Your task to perform on an android device: star an email in the gmail app Image 0: 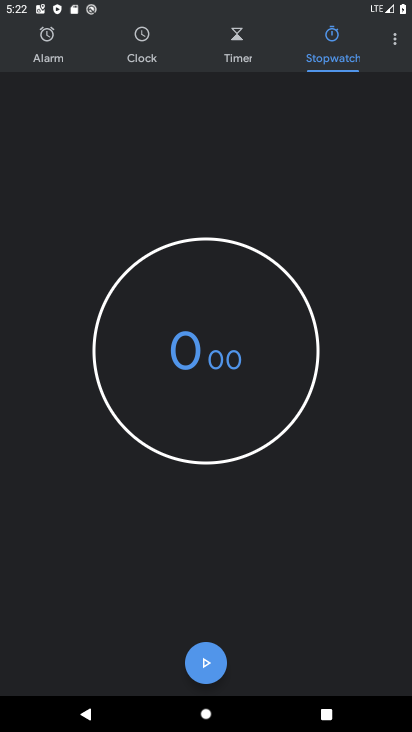
Step 0: press home button
Your task to perform on an android device: star an email in the gmail app Image 1: 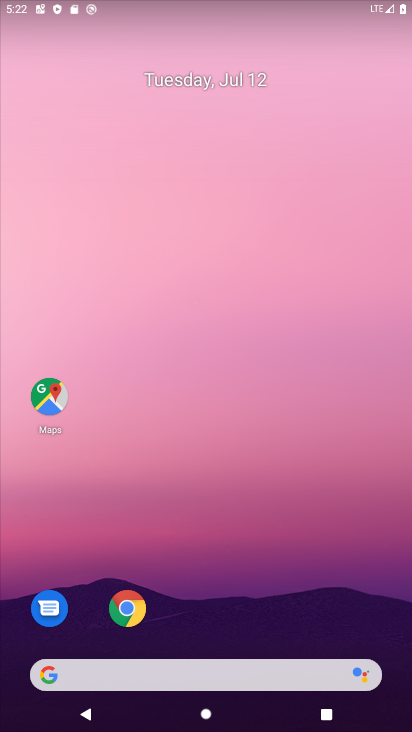
Step 1: drag from (208, 576) to (241, 62)
Your task to perform on an android device: star an email in the gmail app Image 2: 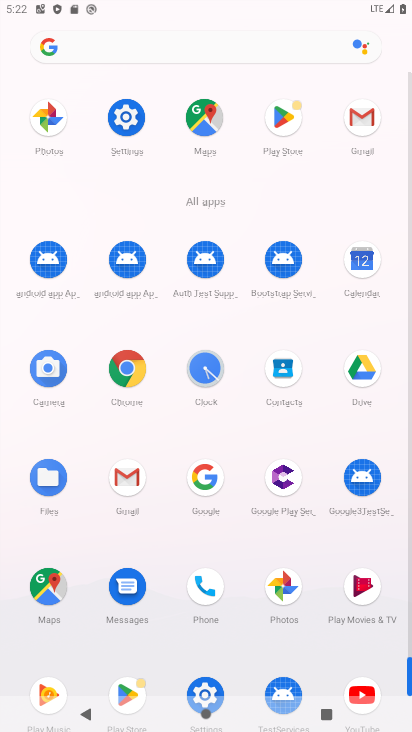
Step 2: click (359, 115)
Your task to perform on an android device: star an email in the gmail app Image 3: 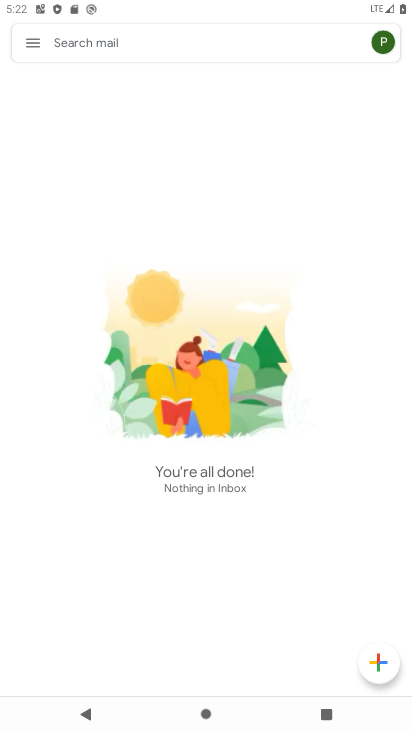
Step 3: task complete